Your task to perform on an android device: Open the web browser Image 0: 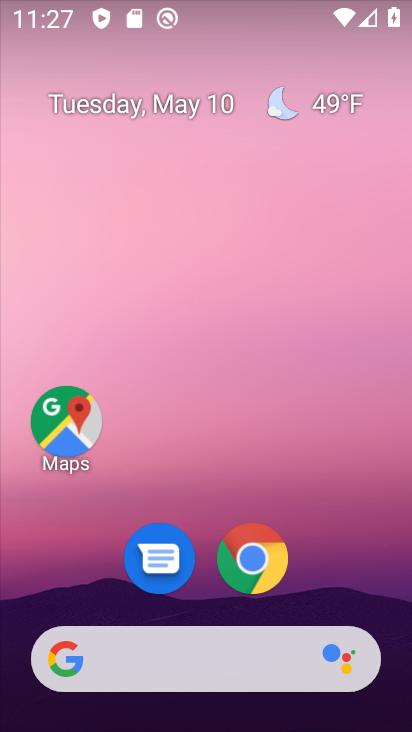
Step 0: click (249, 568)
Your task to perform on an android device: Open the web browser Image 1: 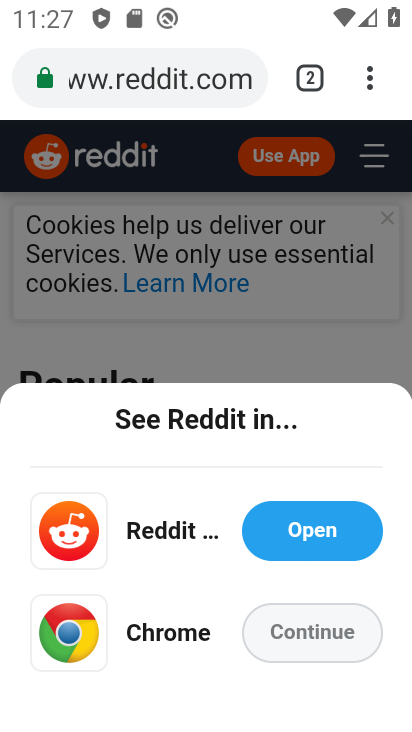
Step 1: click (209, 71)
Your task to perform on an android device: Open the web browser Image 2: 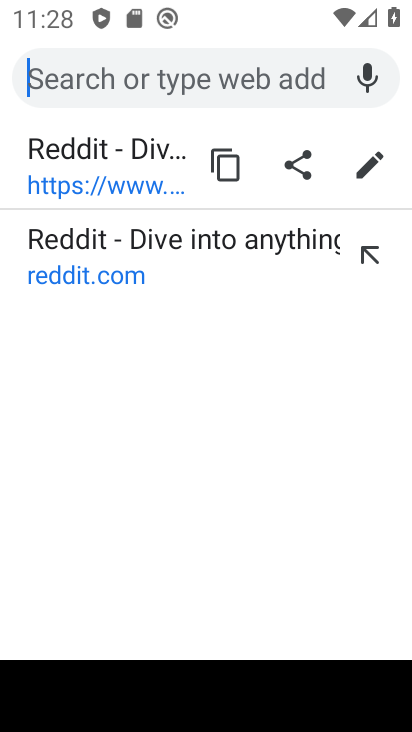
Step 2: type " web browser"
Your task to perform on an android device: Open the web browser Image 3: 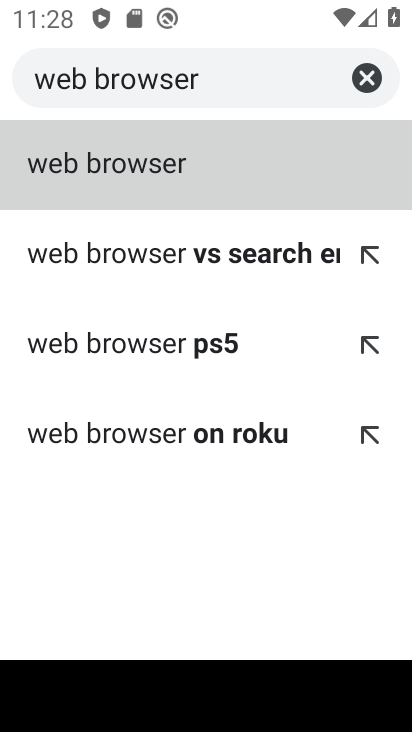
Step 3: click (165, 174)
Your task to perform on an android device: Open the web browser Image 4: 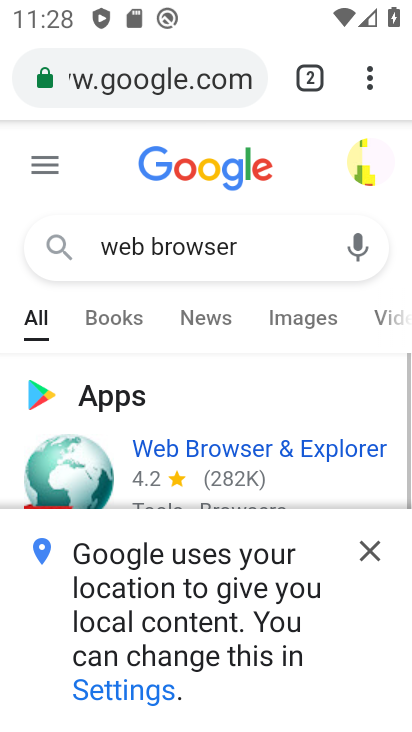
Step 4: task complete